Your task to perform on an android device: check out phone information Image 0: 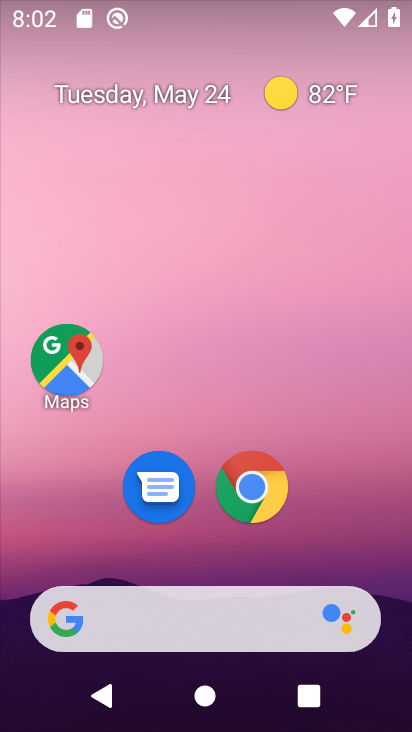
Step 0: drag from (349, 518) to (341, 154)
Your task to perform on an android device: check out phone information Image 1: 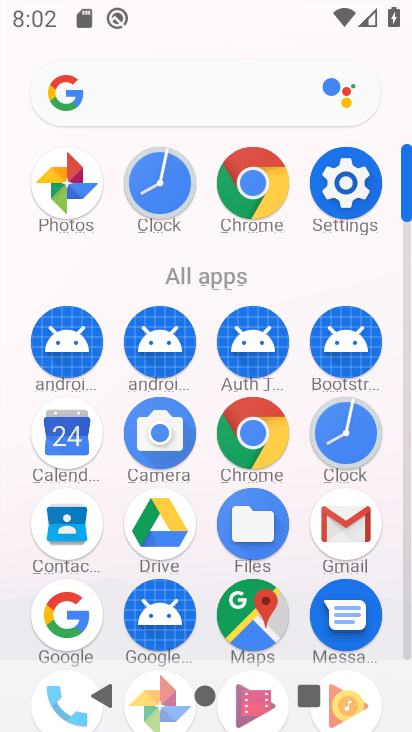
Step 1: click (344, 201)
Your task to perform on an android device: check out phone information Image 2: 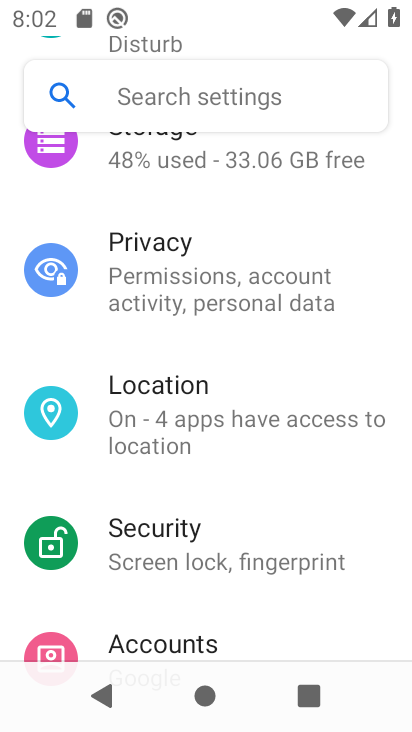
Step 2: drag from (307, 584) to (329, 241)
Your task to perform on an android device: check out phone information Image 3: 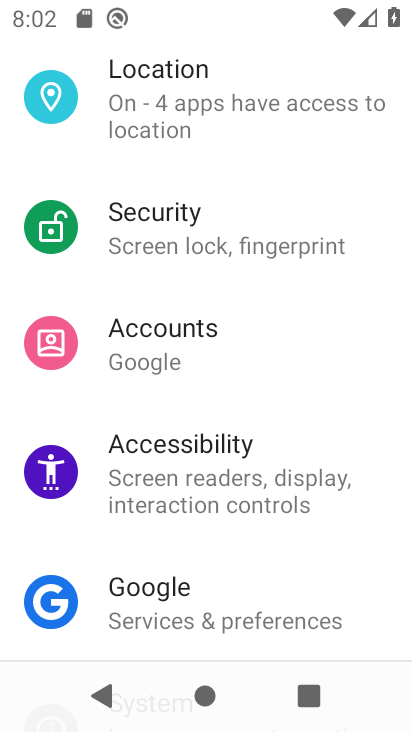
Step 3: drag from (263, 607) to (306, 346)
Your task to perform on an android device: check out phone information Image 4: 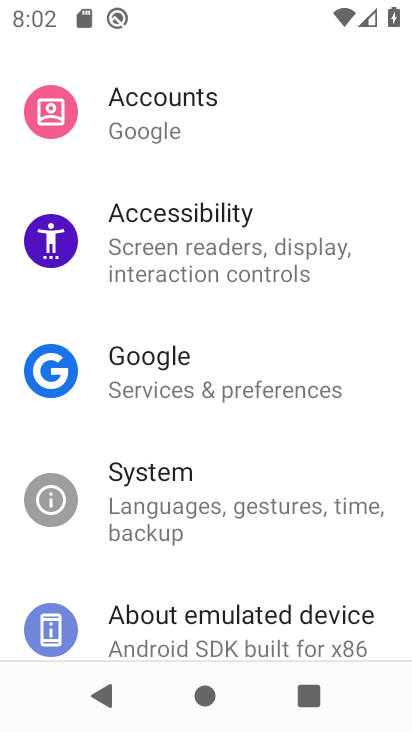
Step 4: drag from (265, 579) to (302, 231)
Your task to perform on an android device: check out phone information Image 5: 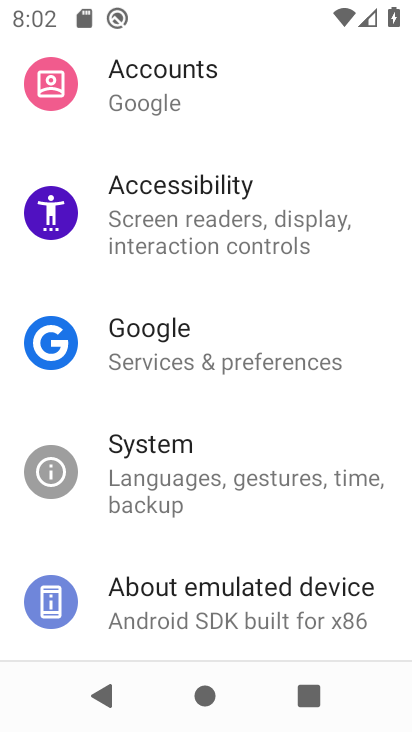
Step 5: click (279, 580)
Your task to perform on an android device: check out phone information Image 6: 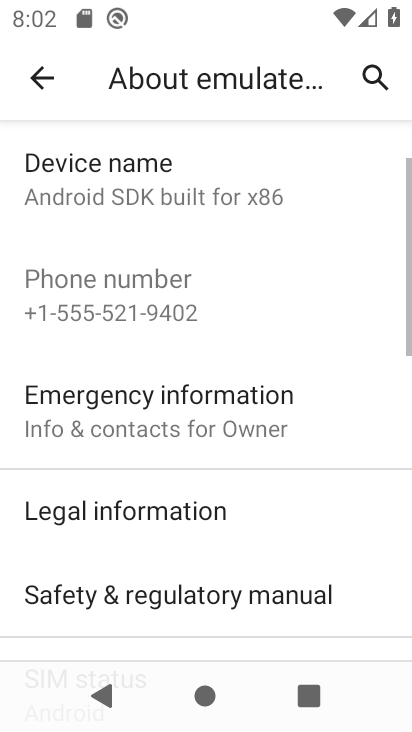
Step 6: task complete